Your task to perform on an android device: Open calendar and show me the second week of next month Image 0: 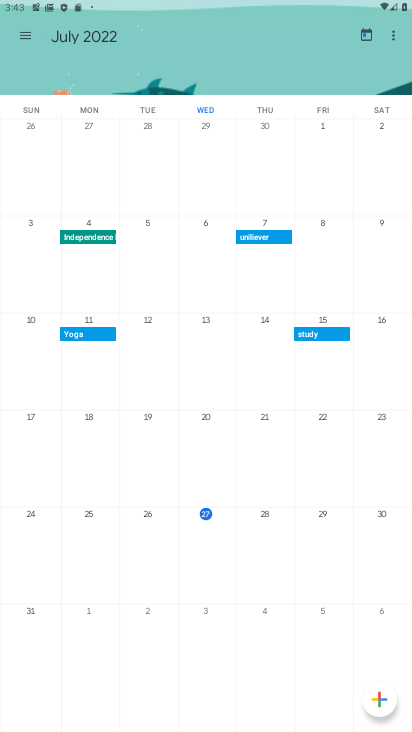
Step 0: drag from (386, 278) to (19, 243)
Your task to perform on an android device: Open calendar and show me the second week of next month Image 1: 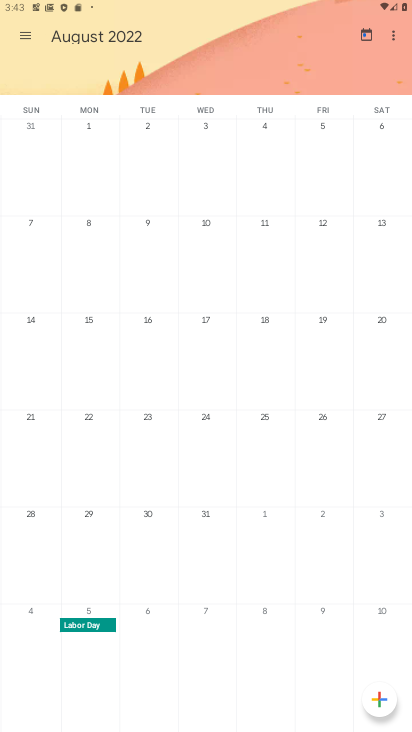
Step 1: click (36, 221)
Your task to perform on an android device: Open calendar and show me the second week of next month Image 2: 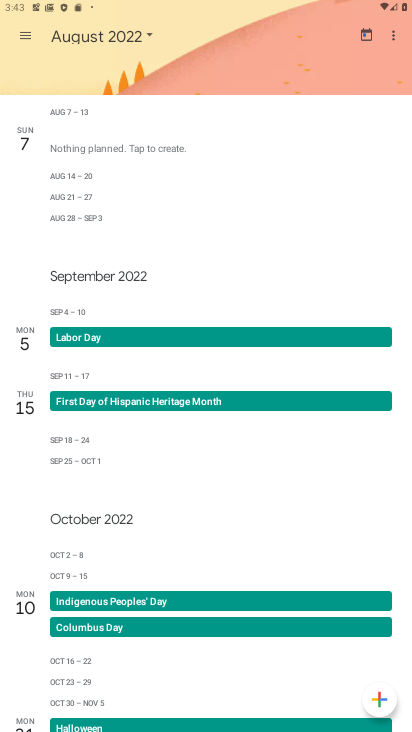
Step 2: click (108, 38)
Your task to perform on an android device: Open calendar and show me the second week of next month Image 3: 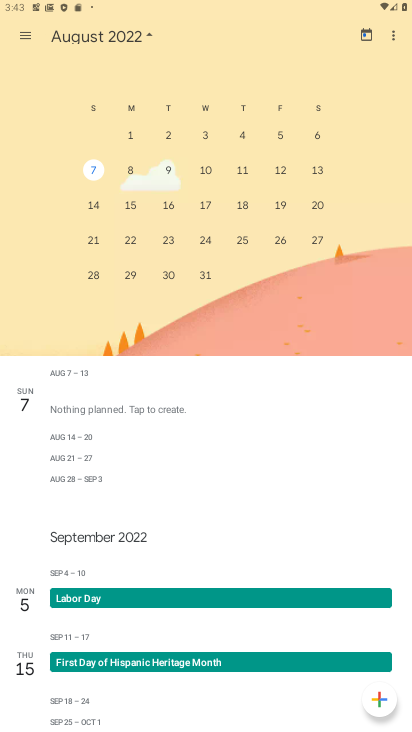
Step 3: click (94, 169)
Your task to perform on an android device: Open calendar and show me the second week of next month Image 4: 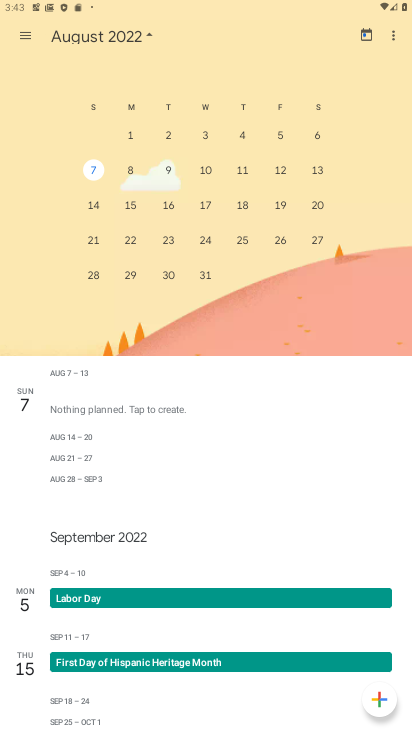
Step 4: task complete